Your task to perform on an android device: allow cookies in the chrome app Image 0: 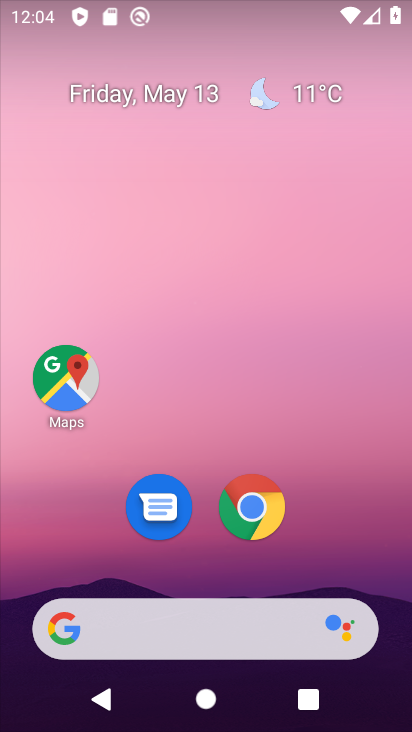
Step 0: click (247, 504)
Your task to perform on an android device: allow cookies in the chrome app Image 1: 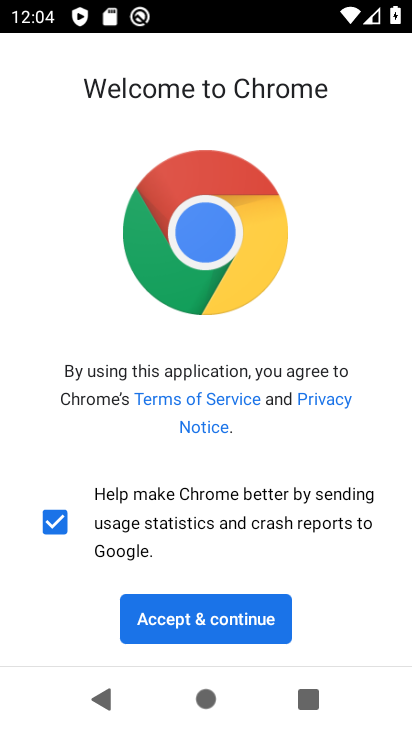
Step 1: click (215, 621)
Your task to perform on an android device: allow cookies in the chrome app Image 2: 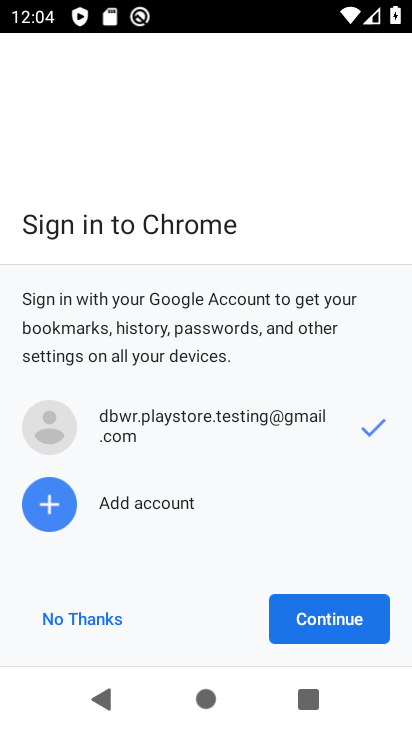
Step 2: click (354, 621)
Your task to perform on an android device: allow cookies in the chrome app Image 3: 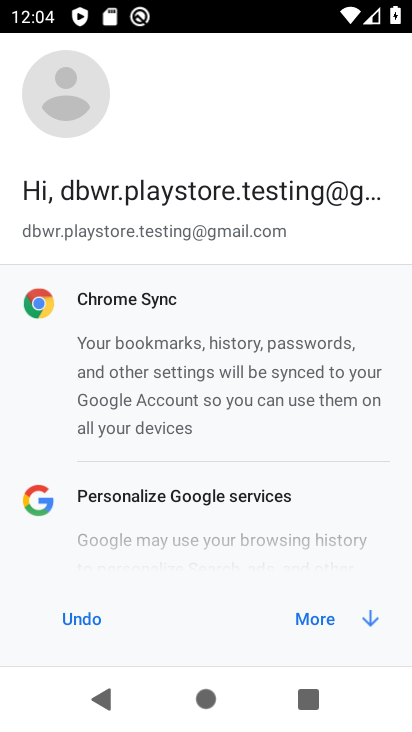
Step 3: click (341, 616)
Your task to perform on an android device: allow cookies in the chrome app Image 4: 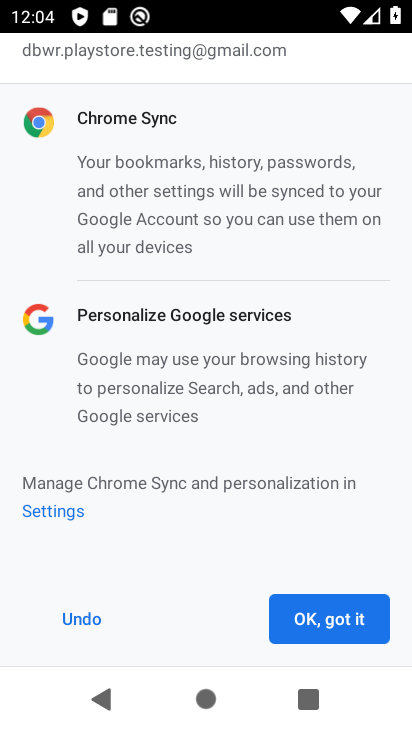
Step 4: click (341, 616)
Your task to perform on an android device: allow cookies in the chrome app Image 5: 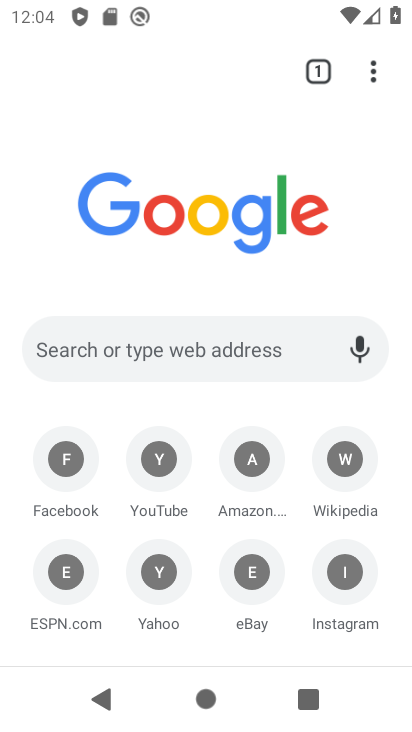
Step 5: click (376, 69)
Your task to perform on an android device: allow cookies in the chrome app Image 6: 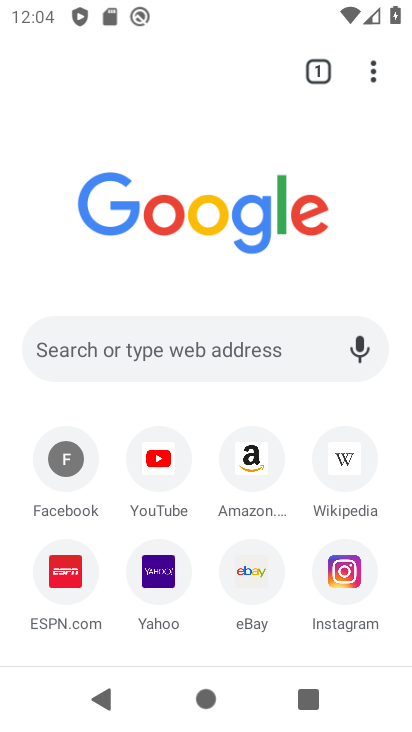
Step 6: click (372, 65)
Your task to perform on an android device: allow cookies in the chrome app Image 7: 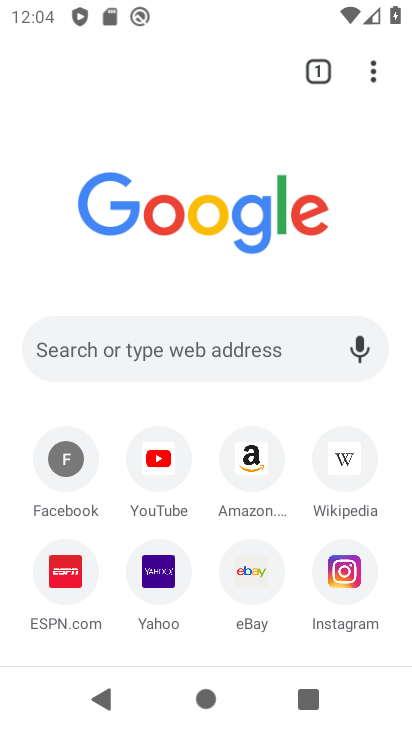
Step 7: click (372, 69)
Your task to perform on an android device: allow cookies in the chrome app Image 8: 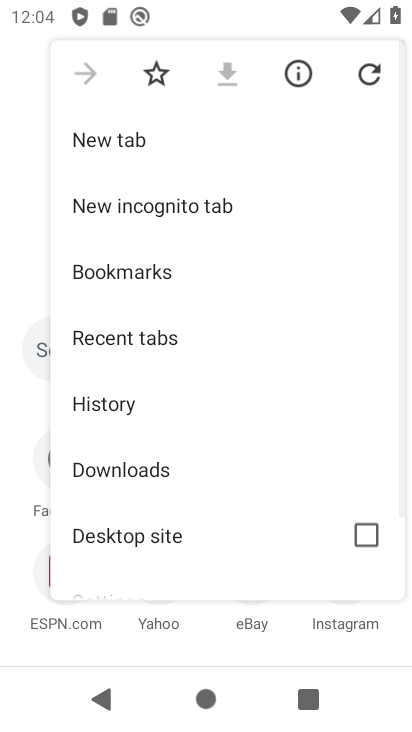
Step 8: drag from (196, 525) to (209, 157)
Your task to perform on an android device: allow cookies in the chrome app Image 9: 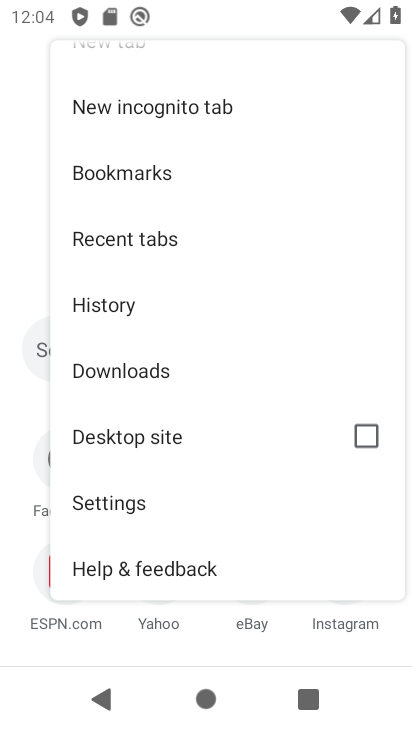
Step 9: click (120, 498)
Your task to perform on an android device: allow cookies in the chrome app Image 10: 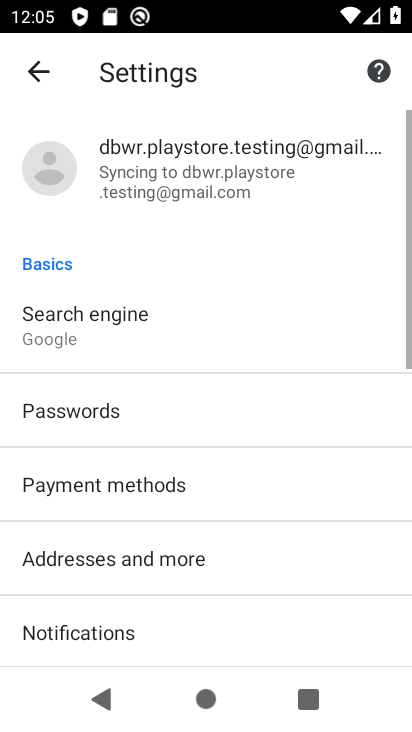
Step 10: drag from (192, 629) to (230, 263)
Your task to perform on an android device: allow cookies in the chrome app Image 11: 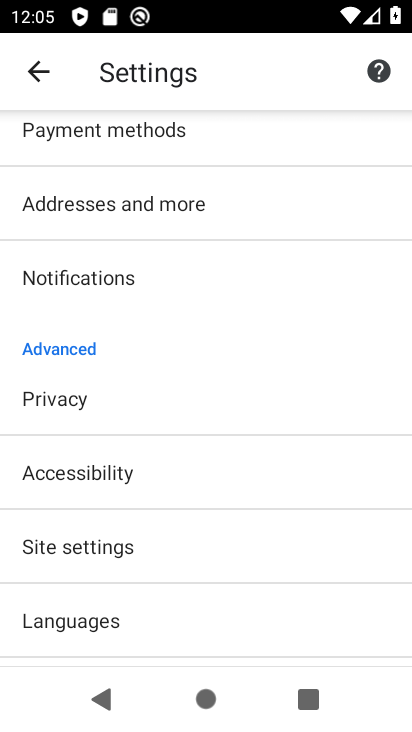
Step 11: click (83, 549)
Your task to perform on an android device: allow cookies in the chrome app Image 12: 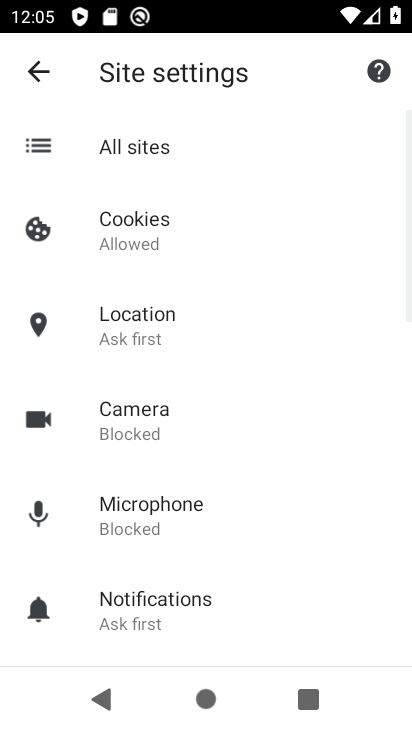
Step 12: click (159, 240)
Your task to perform on an android device: allow cookies in the chrome app Image 13: 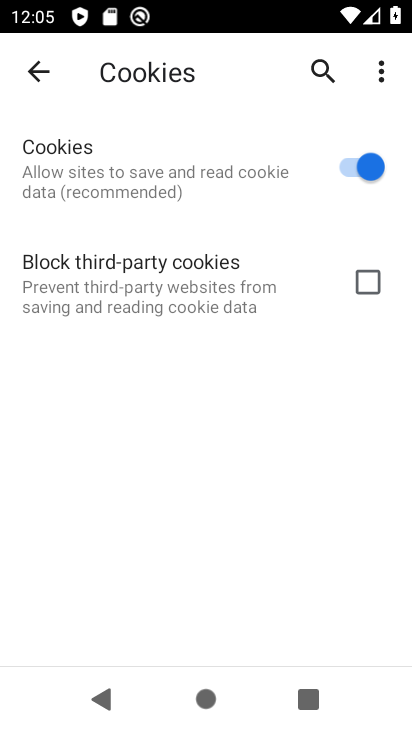
Step 13: task complete